Your task to perform on an android device: View the shopping cart on ebay. Search for sony triple a on ebay, select the first entry, and add it to the cart. Image 0: 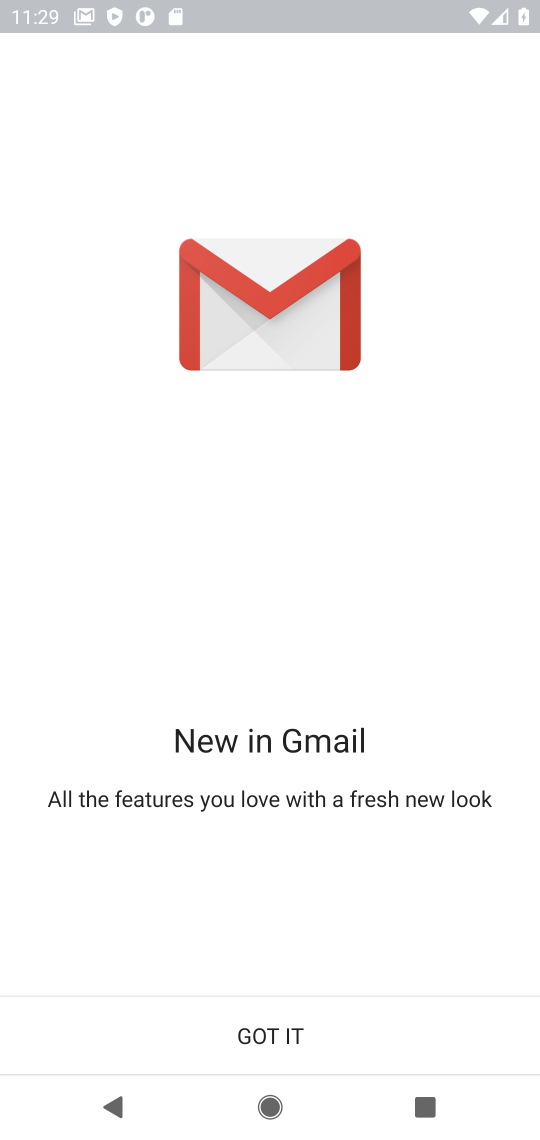
Step 0: press home button
Your task to perform on an android device: View the shopping cart on ebay. Search for sony triple a on ebay, select the first entry, and add it to the cart. Image 1: 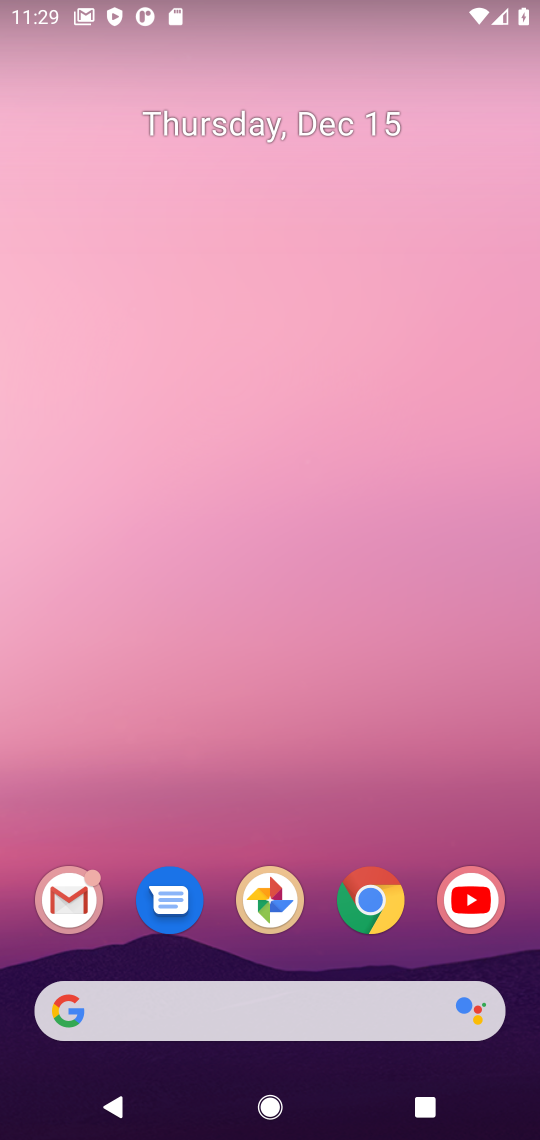
Step 1: click (370, 904)
Your task to perform on an android device: View the shopping cart on ebay. Search for sony triple a on ebay, select the first entry, and add it to the cart. Image 2: 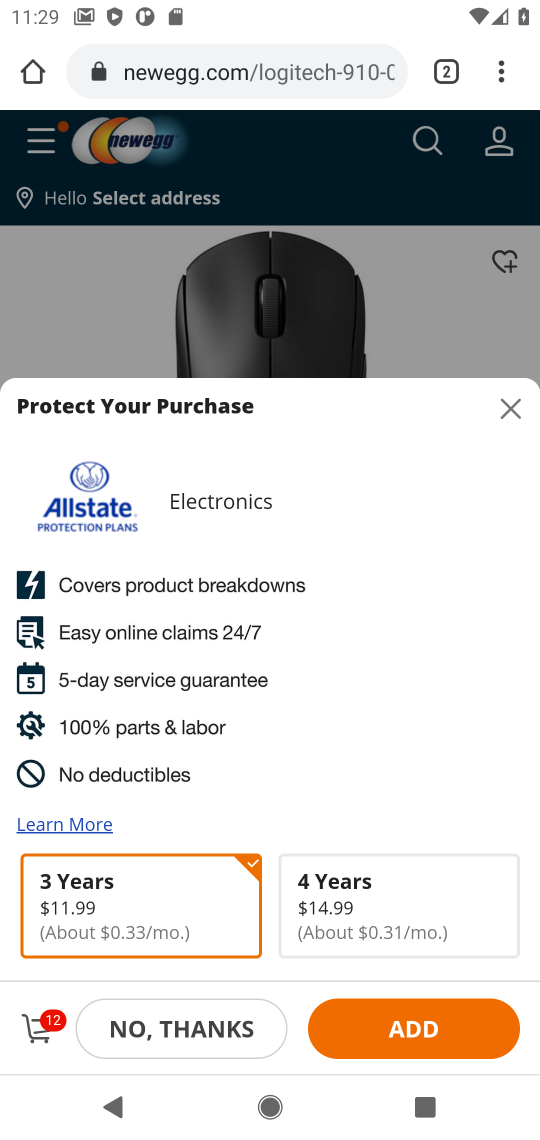
Step 2: click (279, 57)
Your task to perform on an android device: View the shopping cart on ebay. Search for sony triple a on ebay, select the first entry, and add it to the cart. Image 3: 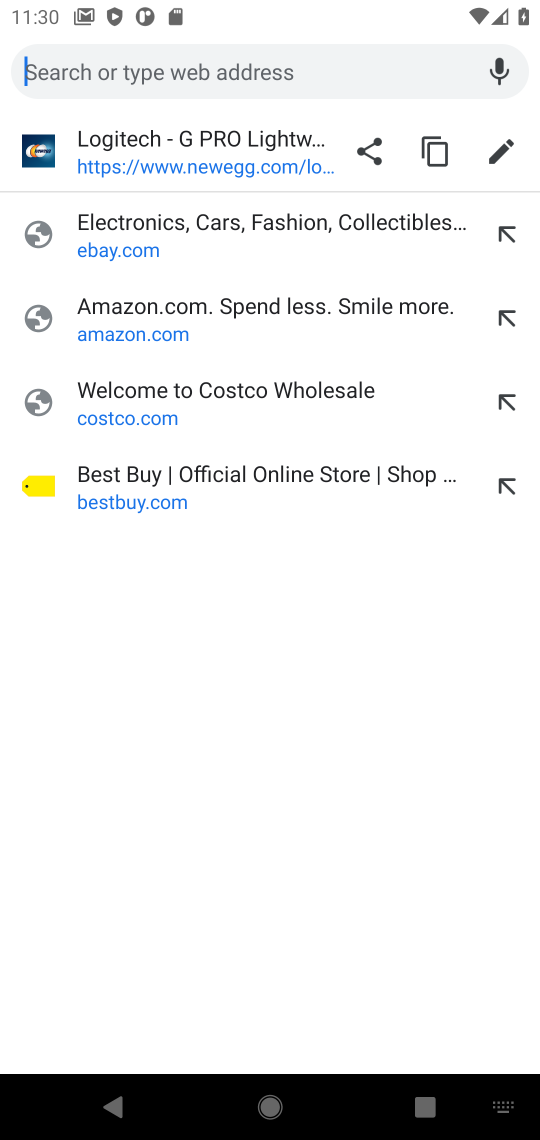
Step 3: press enter
Your task to perform on an android device: View the shopping cart on ebay. Search for sony triple a on ebay, select the first entry, and add it to the cart. Image 4: 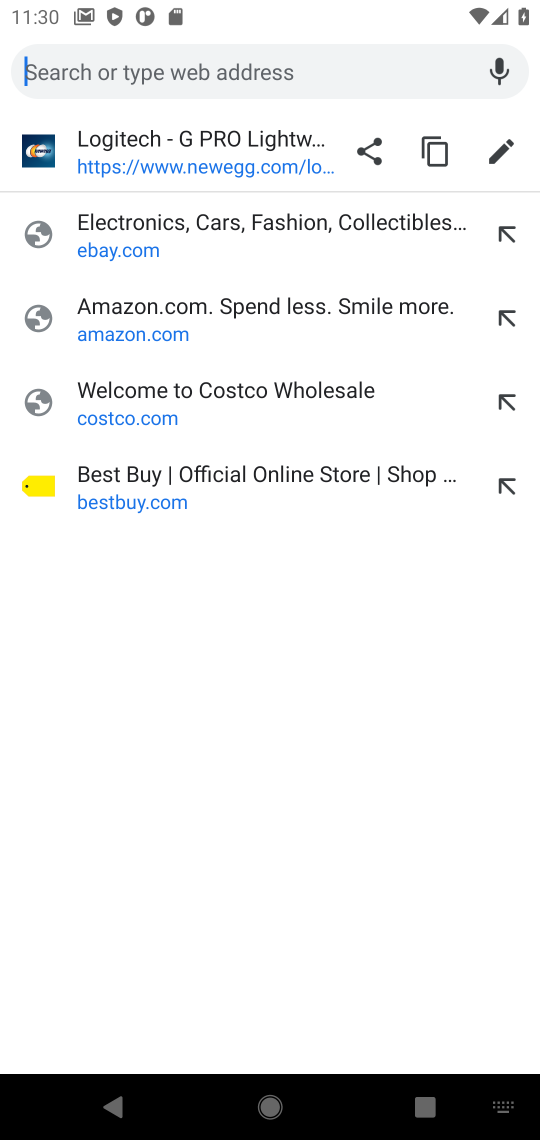
Step 4: type "ebay"
Your task to perform on an android device: View the shopping cart on ebay. Search for sony triple a on ebay, select the first entry, and add it to the cart. Image 5: 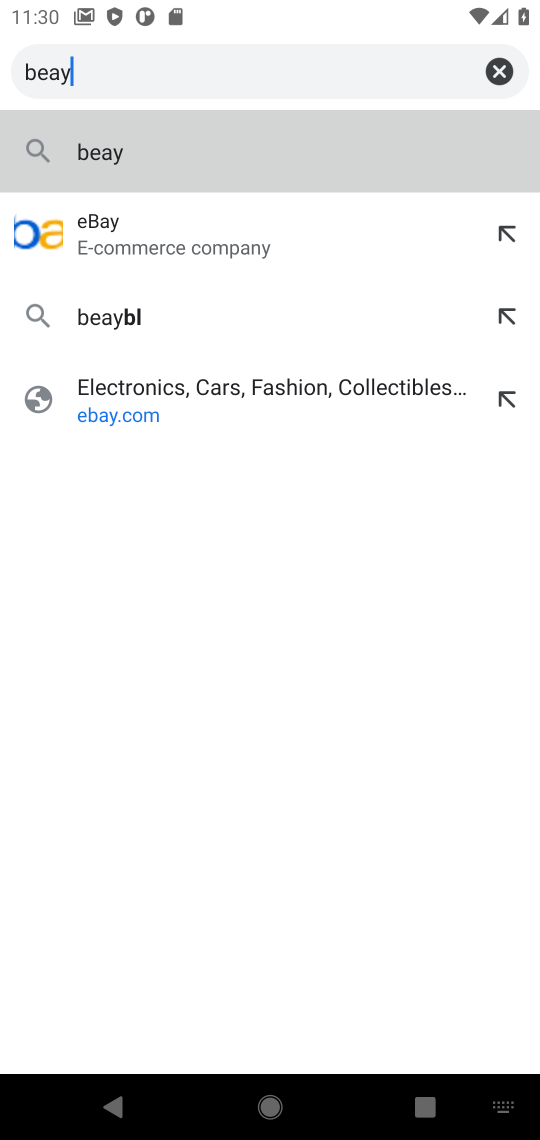
Step 5: click (429, 148)
Your task to perform on an android device: View the shopping cart on ebay. Search for sony triple a on ebay, select the first entry, and add it to the cart. Image 6: 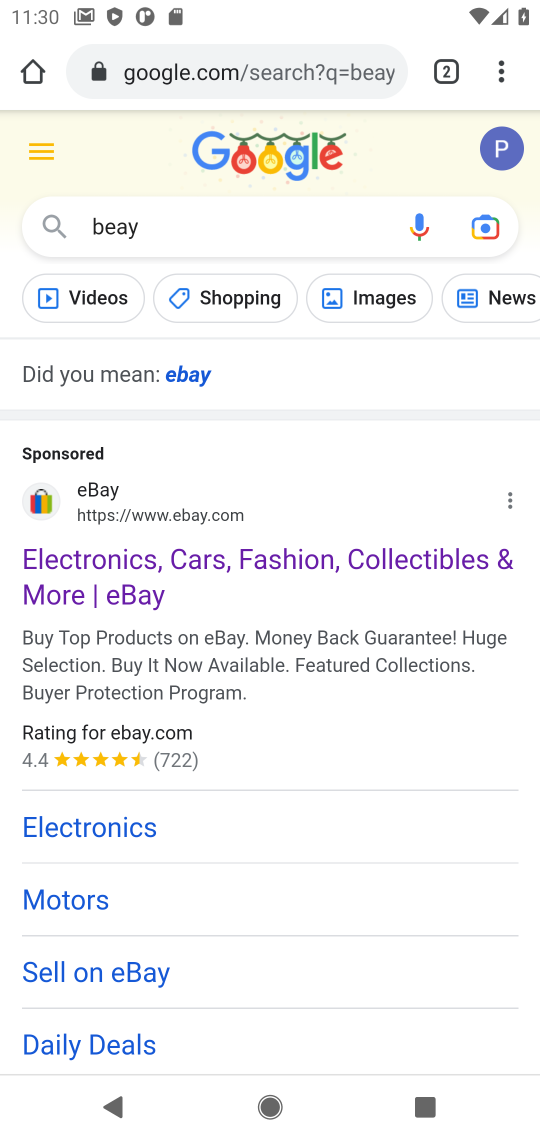
Step 6: drag from (293, 897) to (452, 283)
Your task to perform on an android device: View the shopping cart on ebay. Search for sony triple a on ebay, select the first entry, and add it to the cart. Image 7: 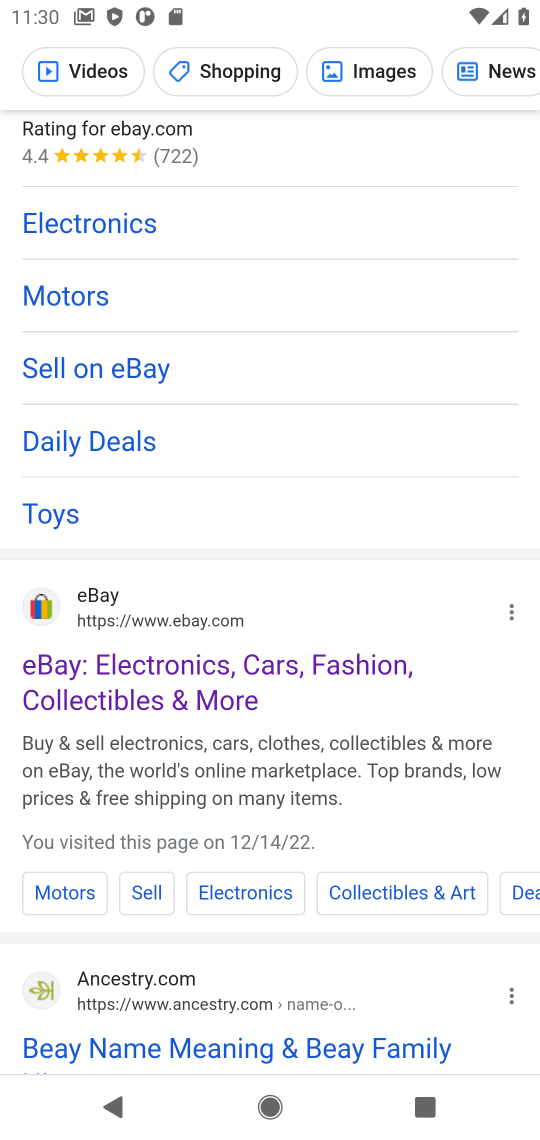
Step 7: click (197, 619)
Your task to perform on an android device: View the shopping cart on ebay. Search for sony triple a on ebay, select the first entry, and add it to the cart. Image 8: 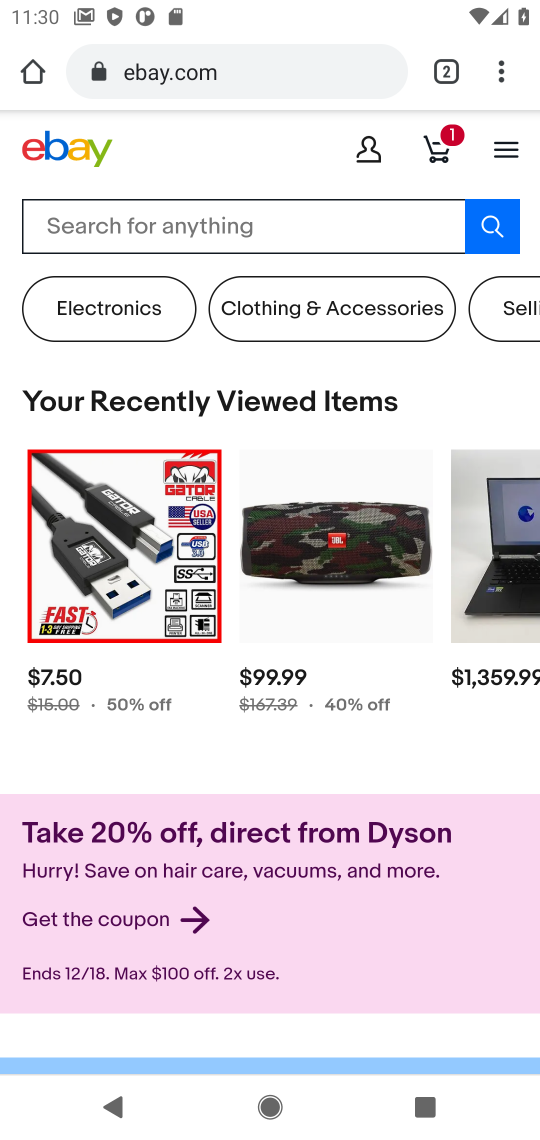
Step 8: click (395, 226)
Your task to perform on an android device: View the shopping cart on ebay. Search for sony triple a on ebay, select the first entry, and add it to the cart. Image 9: 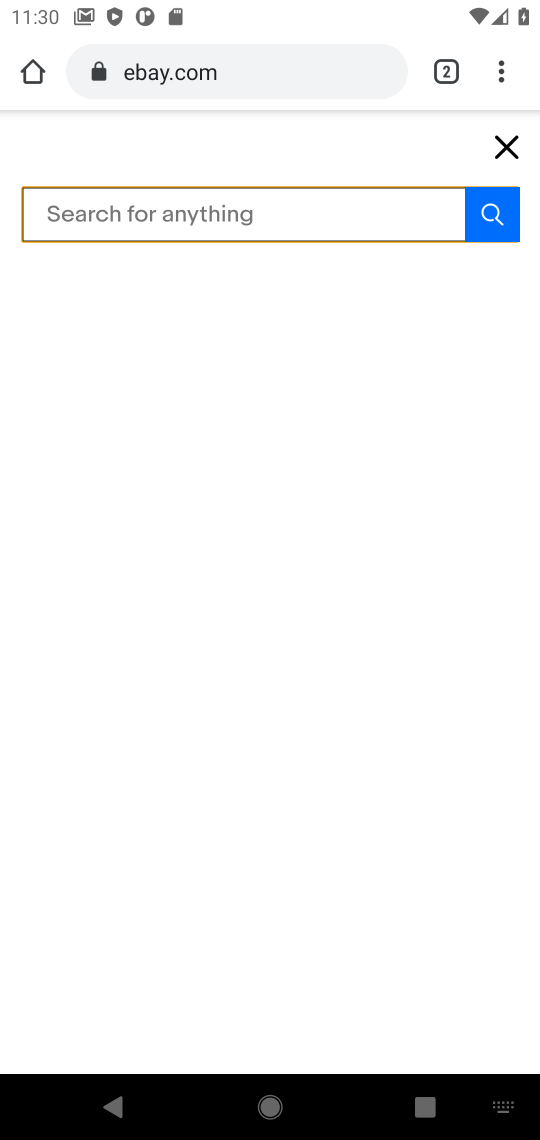
Step 9: press enter
Your task to perform on an android device: View the shopping cart on ebay. Search for sony triple a on ebay, select the first entry, and add it to the cart. Image 10: 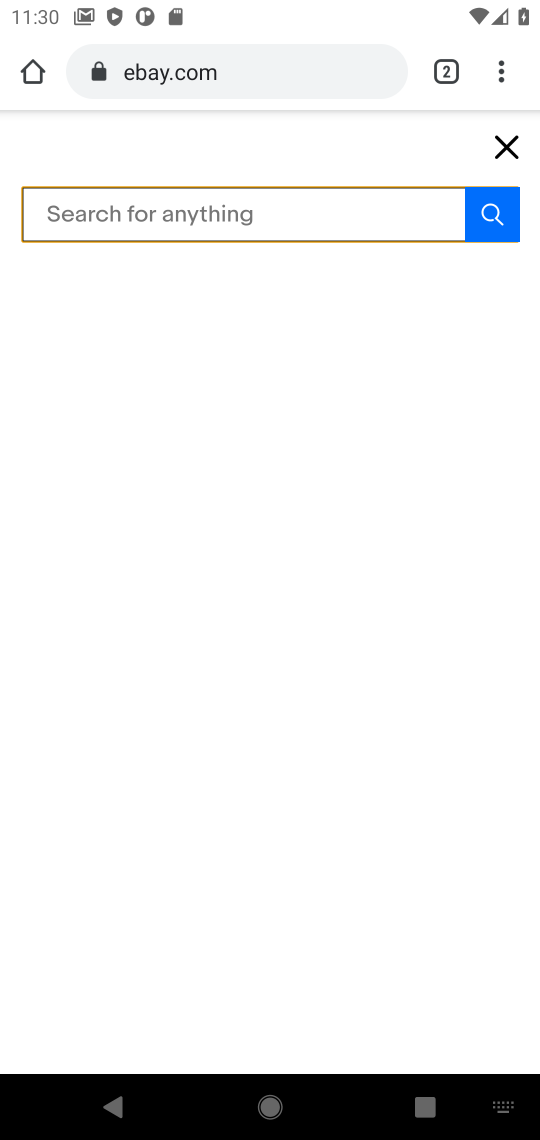
Step 10: type "sony triple a"
Your task to perform on an android device: View the shopping cart on ebay. Search for sony triple a on ebay, select the first entry, and add it to the cart. Image 11: 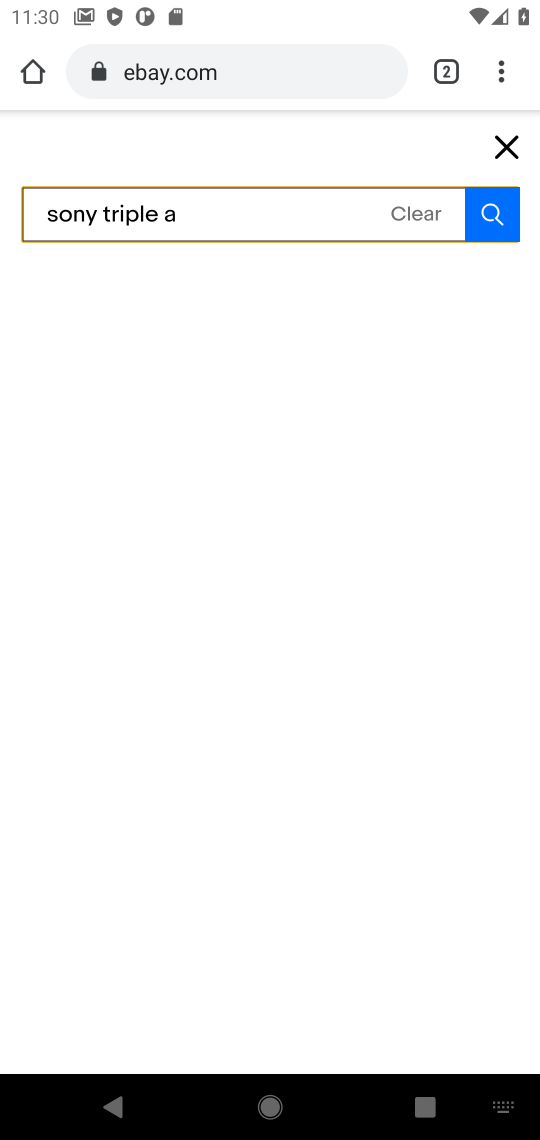
Step 11: click (505, 210)
Your task to perform on an android device: View the shopping cart on ebay. Search for sony triple a on ebay, select the first entry, and add it to the cart. Image 12: 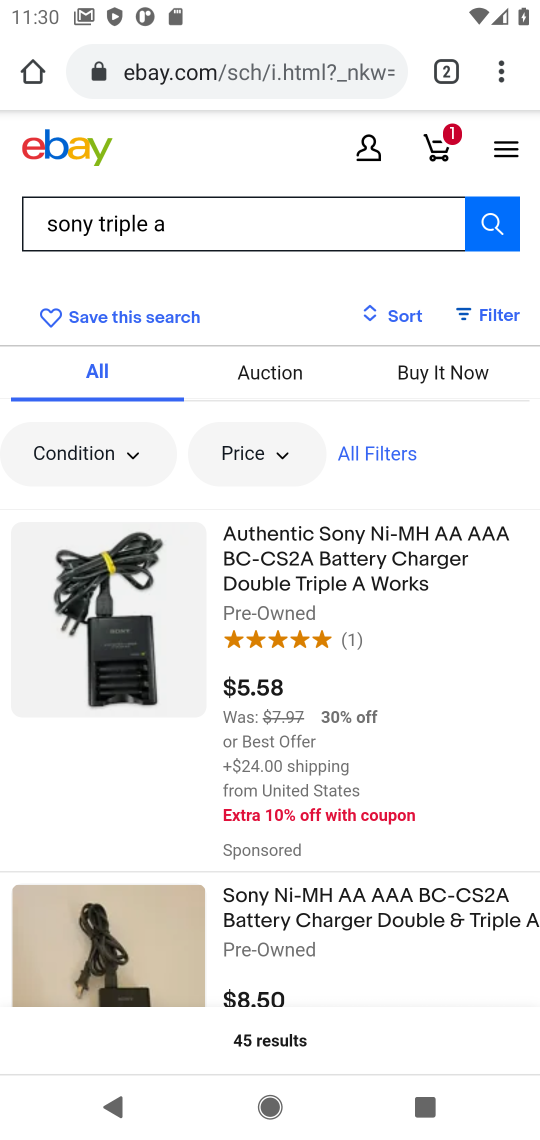
Step 12: click (135, 653)
Your task to perform on an android device: View the shopping cart on ebay. Search for sony triple a on ebay, select the first entry, and add it to the cart. Image 13: 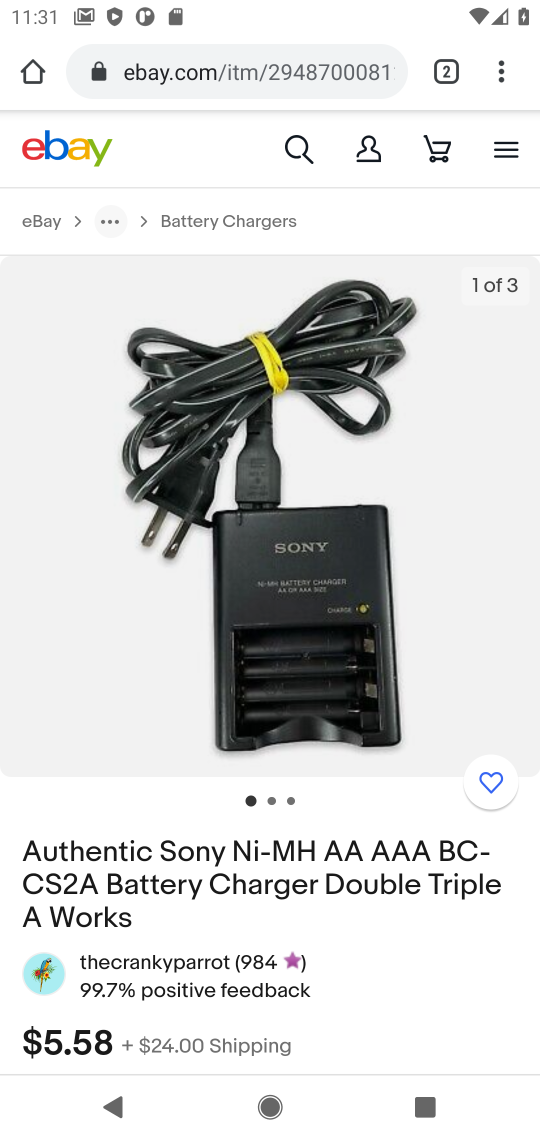
Step 13: drag from (460, 959) to (511, 337)
Your task to perform on an android device: View the shopping cart on ebay. Search for sony triple a on ebay, select the first entry, and add it to the cart. Image 14: 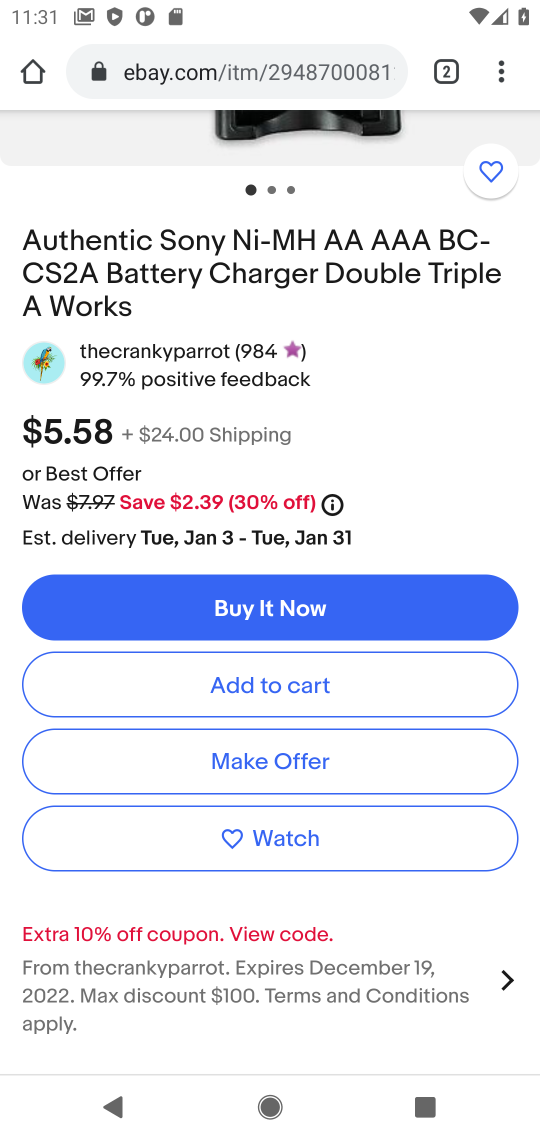
Step 14: click (351, 681)
Your task to perform on an android device: View the shopping cart on ebay. Search for sony triple a on ebay, select the first entry, and add it to the cart. Image 15: 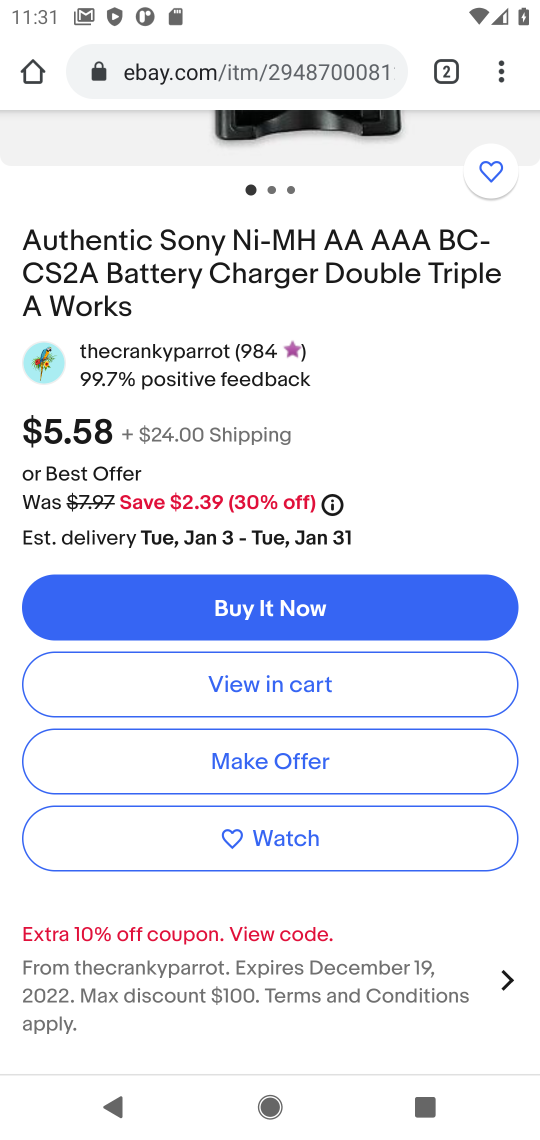
Step 15: click (351, 681)
Your task to perform on an android device: View the shopping cart on ebay. Search for sony triple a on ebay, select the first entry, and add it to the cart. Image 16: 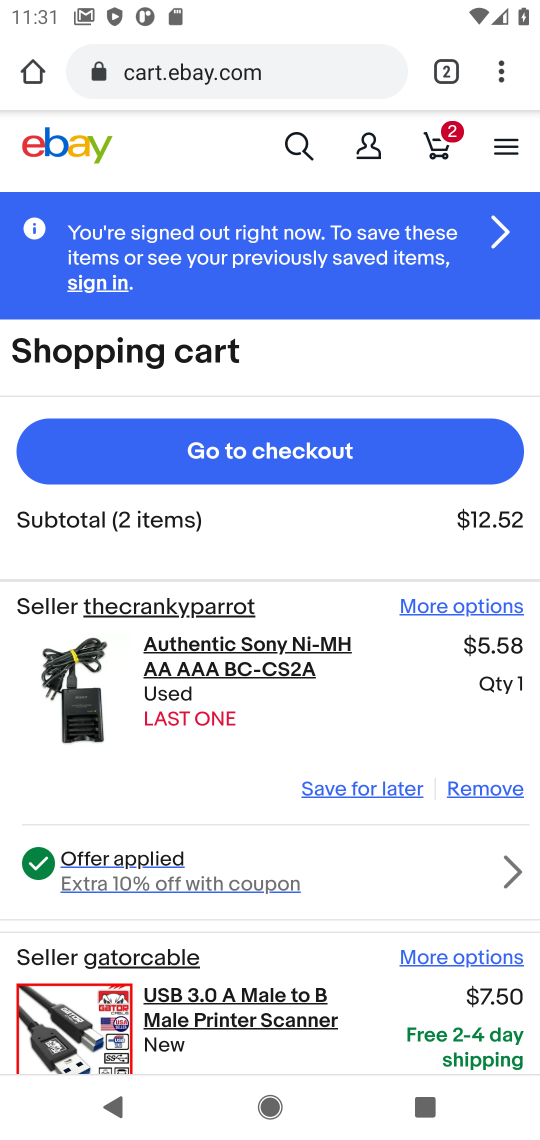
Step 16: task complete